Your task to perform on an android device: allow notifications from all sites in the chrome app Image 0: 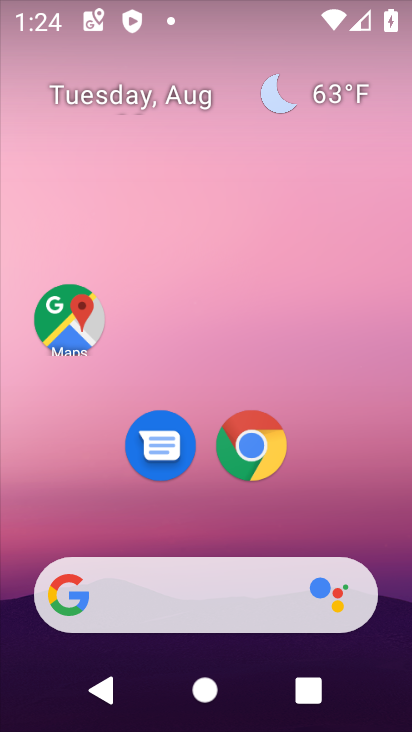
Step 0: press home button
Your task to perform on an android device: allow notifications from all sites in the chrome app Image 1: 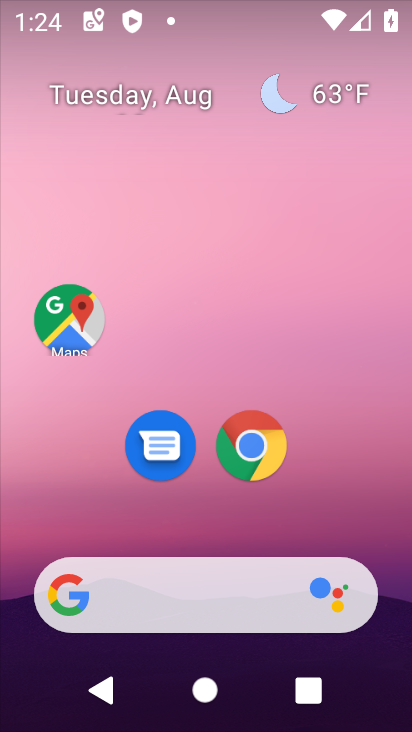
Step 1: drag from (205, 521) to (258, 103)
Your task to perform on an android device: allow notifications from all sites in the chrome app Image 2: 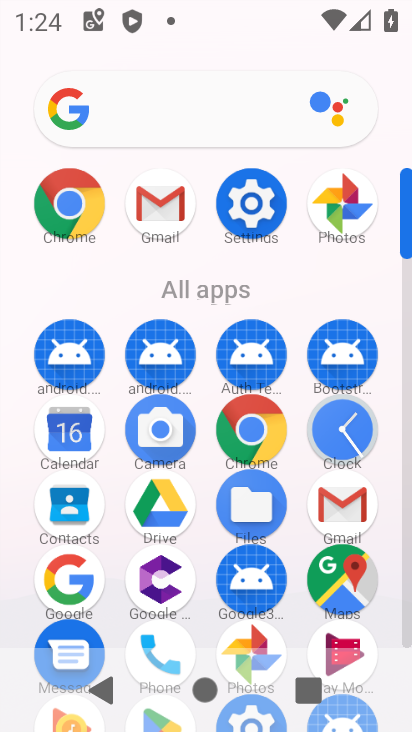
Step 2: click (247, 431)
Your task to perform on an android device: allow notifications from all sites in the chrome app Image 3: 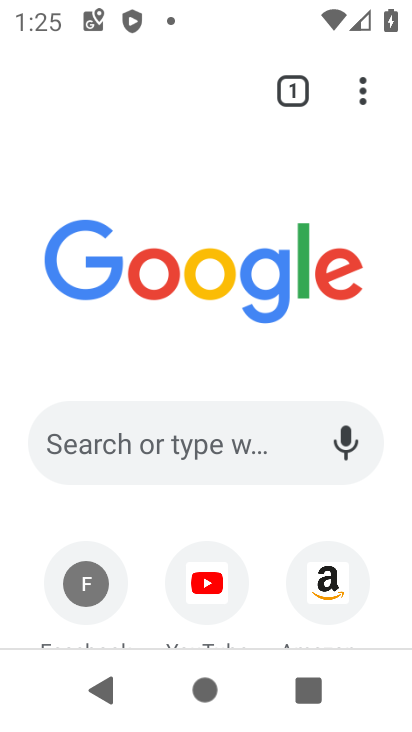
Step 3: click (361, 89)
Your task to perform on an android device: allow notifications from all sites in the chrome app Image 4: 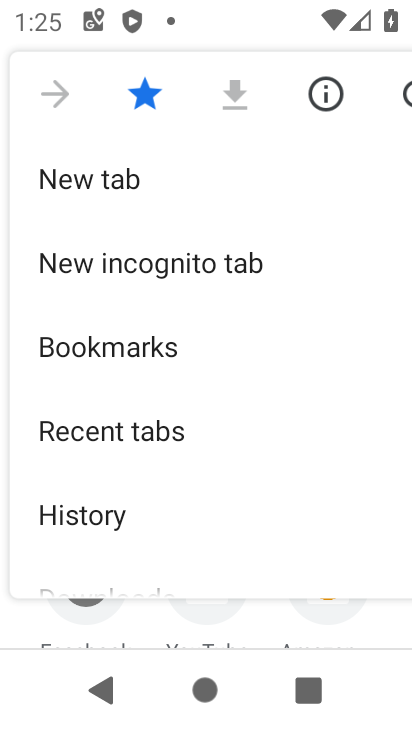
Step 4: drag from (159, 534) to (228, 89)
Your task to perform on an android device: allow notifications from all sites in the chrome app Image 5: 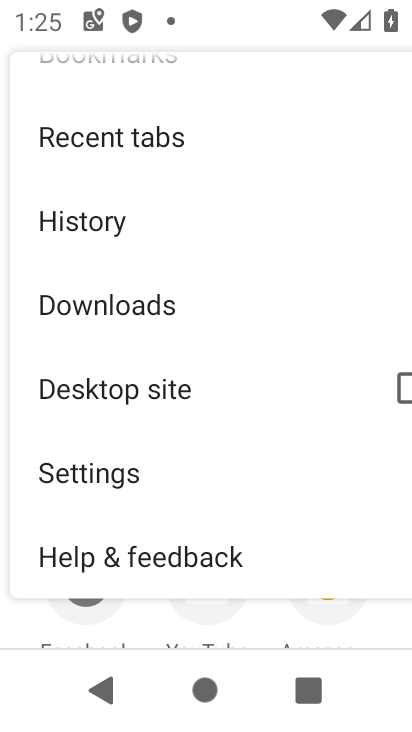
Step 5: click (144, 470)
Your task to perform on an android device: allow notifications from all sites in the chrome app Image 6: 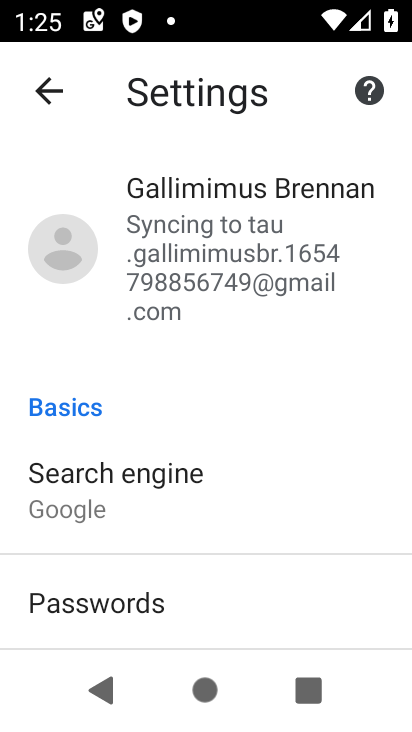
Step 6: drag from (194, 570) to (272, 101)
Your task to perform on an android device: allow notifications from all sites in the chrome app Image 7: 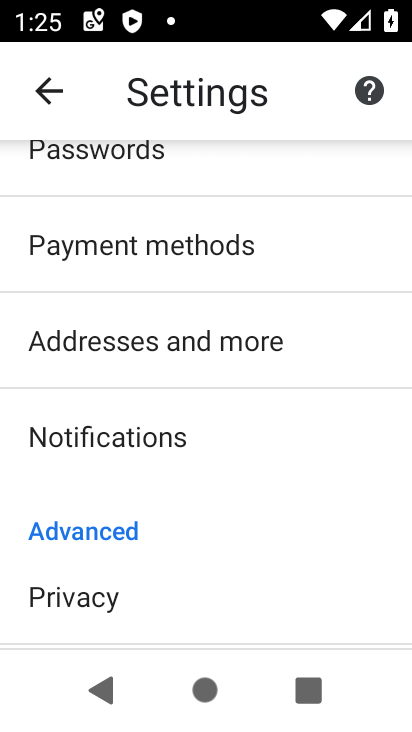
Step 7: drag from (193, 583) to (284, 183)
Your task to perform on an android device: allow notifications from all sites in the chrome app Image 8: 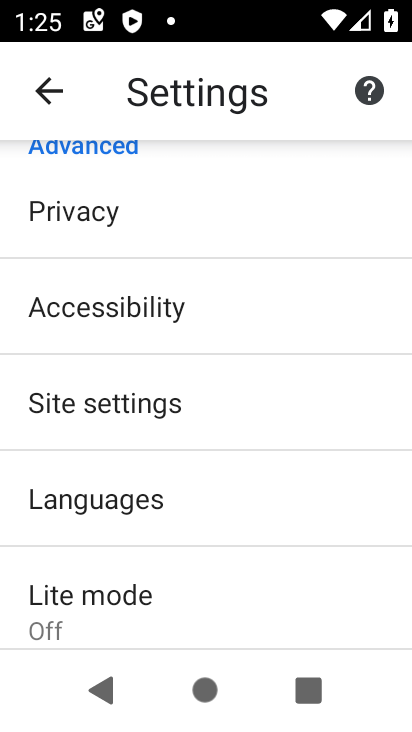
Step 8: click (193, 391)
Your task to perform on an android device: allow notifications from all sites in the chrome app Image 9: 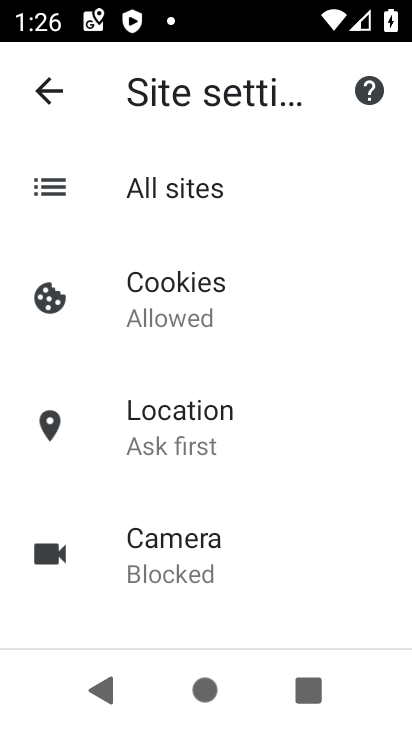
Step 9: click (97, 191)
Your task to perform on an android device: allow notifications from all sites in the chrome app Image 10: 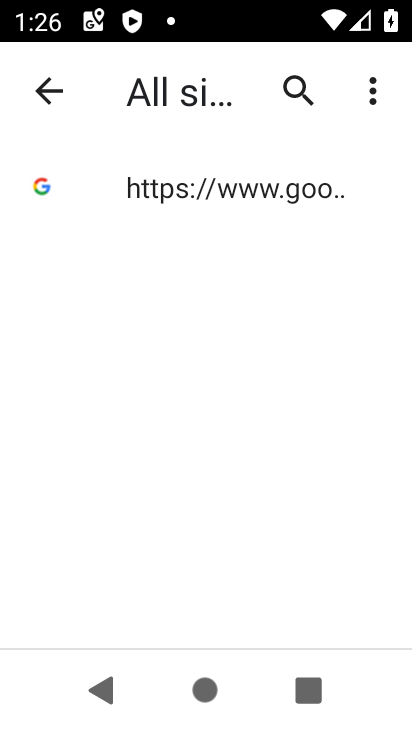
Step 10: click (111, 180)
Your task to perform on an android device: allow notifications from all sites in the chrome app Image 11: 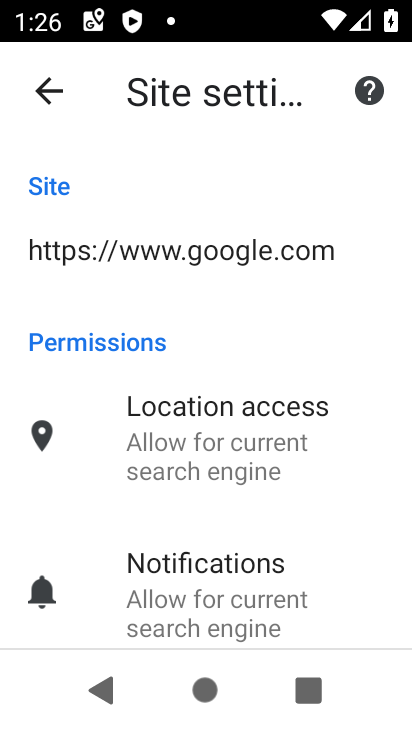
Step 11: task complete